Your task to perform on an android device: find snoozed emails in the gmail app Image 0: 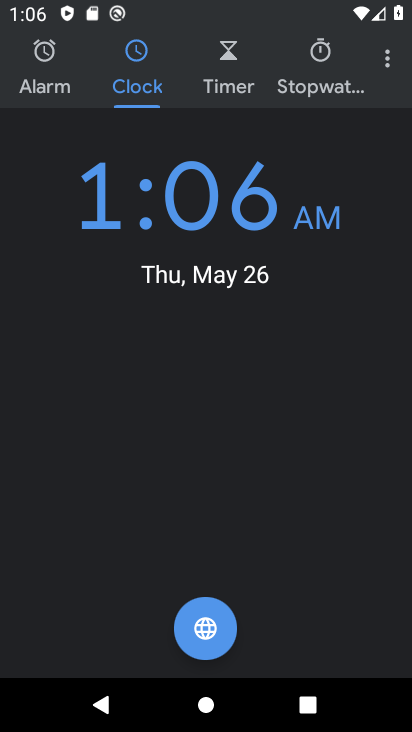
Step 0: press home button
Your task to perform on an android device: find snoozed emails in the gmail app Image 1: 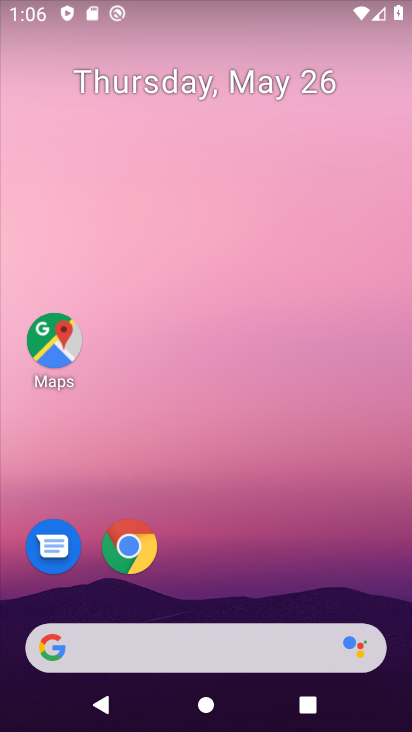
Step 1: drag from (213, 639) to (106, 35)
Your task to perform on an android device: find snoozed emails in the gmail app Image 2: 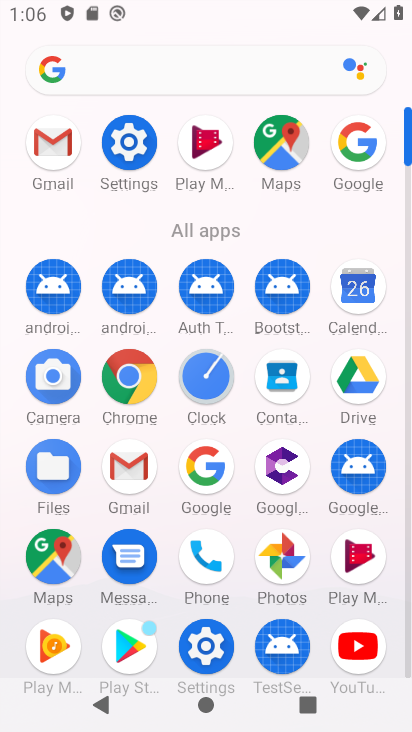
Step 2: click (134, 471)
Your task to perform on an android device: find snoozed emails in the gmail app Image 3: 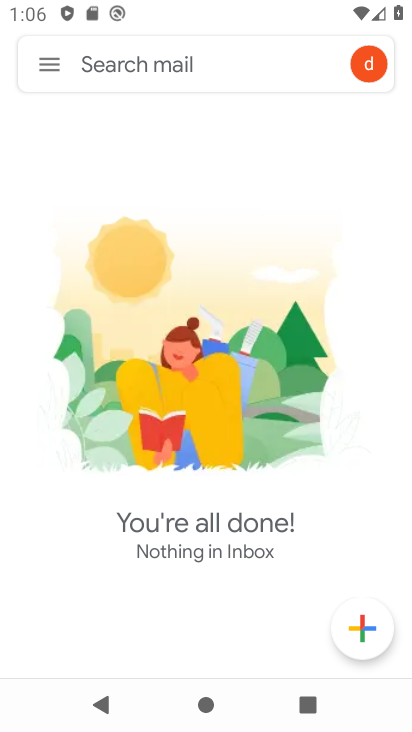
Step 3: click (52, 74)
Your task to perform on an android device: find snoozed emails in the gmail app Image 4: 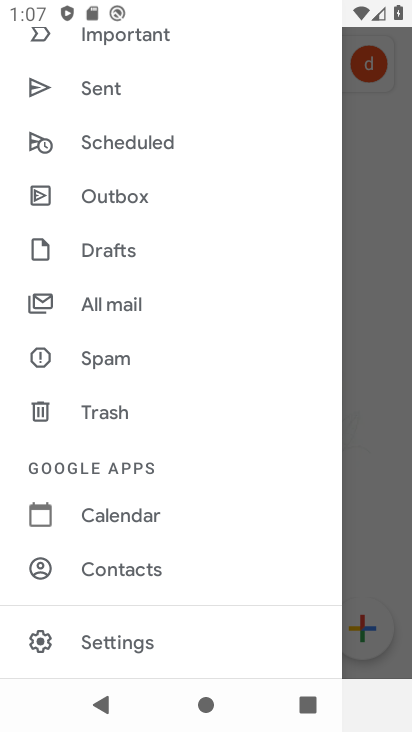
Step 4: drag from (118, 184) to (122, 481)
Your task to perform on an android device: find snoozed emails in the gmail app Image 5: 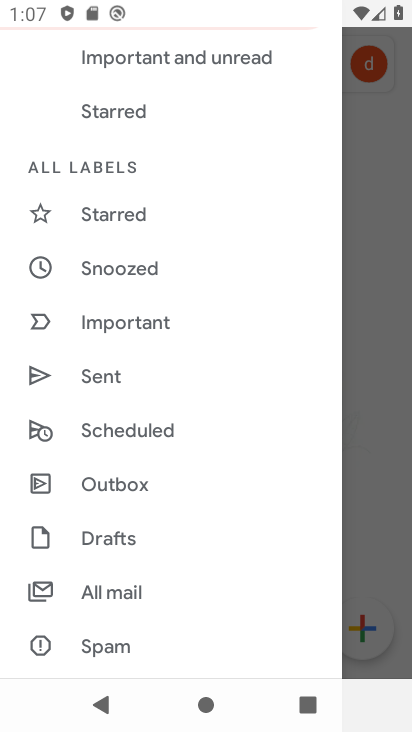
Step 5: click (127, 269)
Your task to perform on an android device: find snoozed emails in the gmail app Image 6: 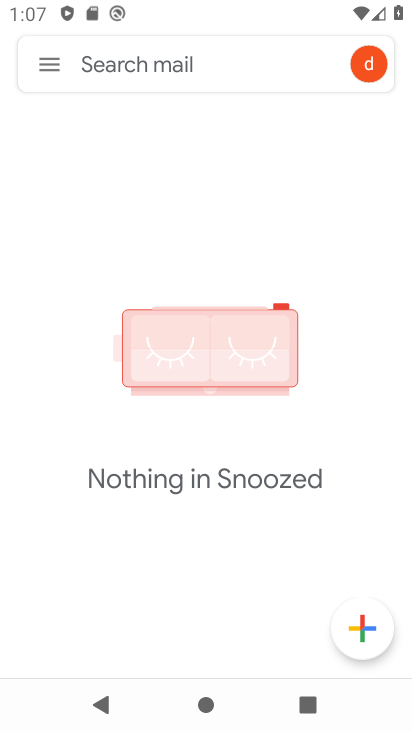
Step 6: task complete